Your task to perform on an android device: toggle show notifications on the lock screen Image 0: 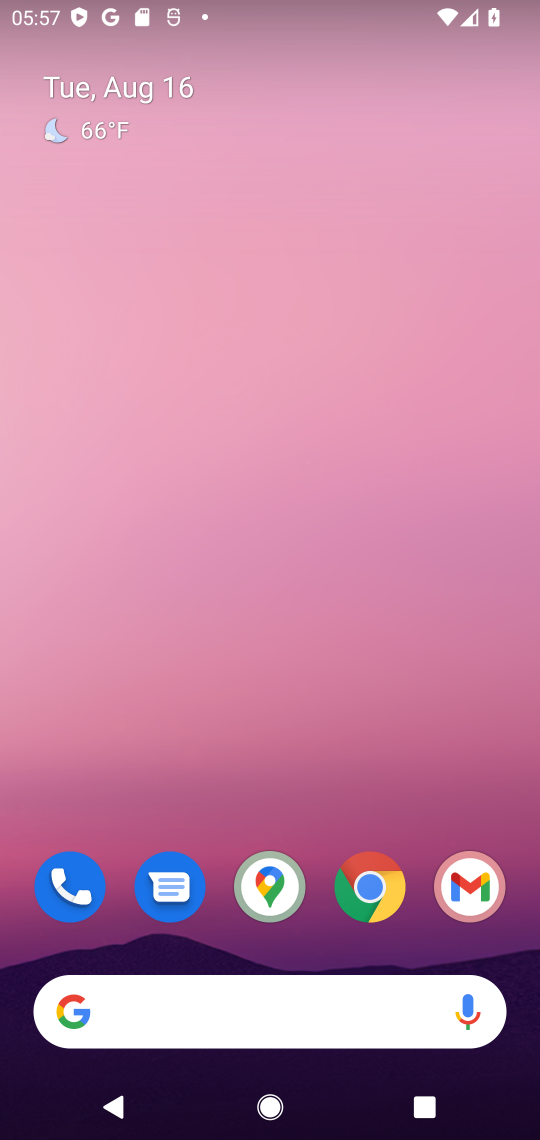
Step 0: drag from (270, 800) to (343, 25)
Your task to perform on an android device: toggle show notifications on the lock screen Image 1: 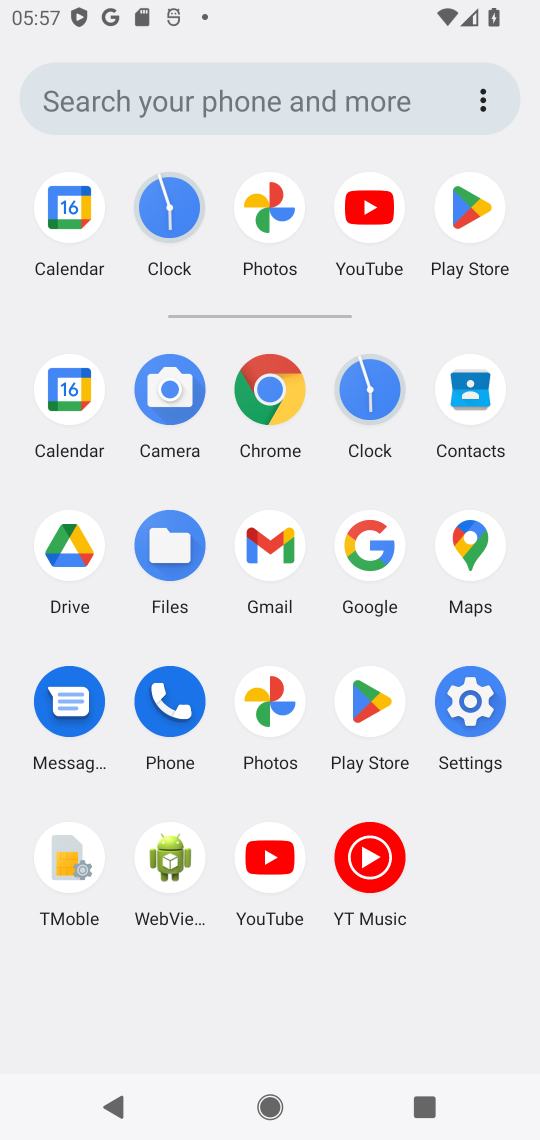
Step 1: click (485, 679)
Your task to perform on an android device: toggle show notifications on the lock screen Image 2: 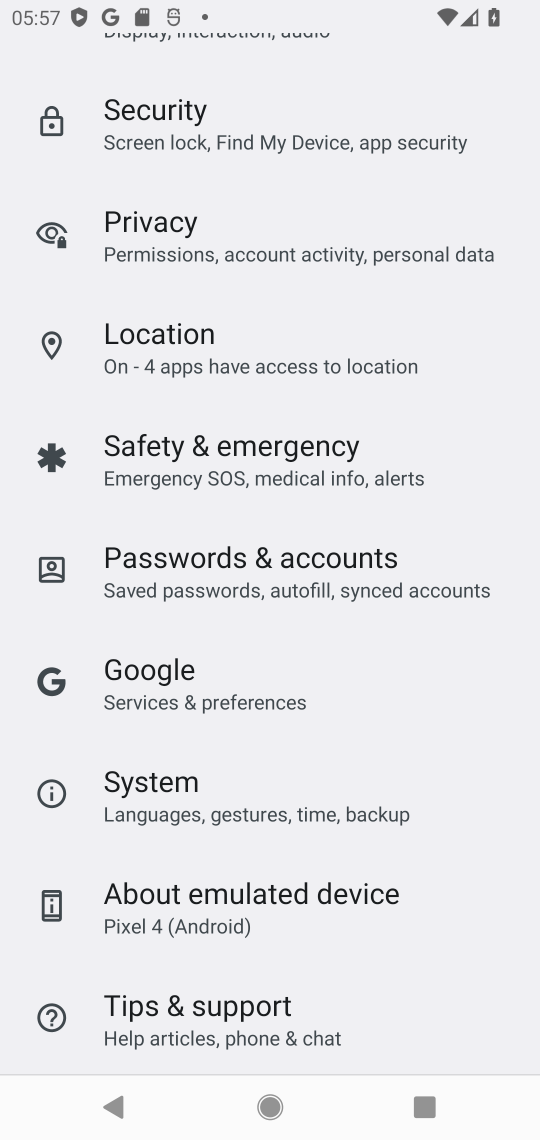
Step 2: drag from (343, 170) to (299, 712)
Your task to perform on an android device: toggle show notifications on the lock screen Image 3: 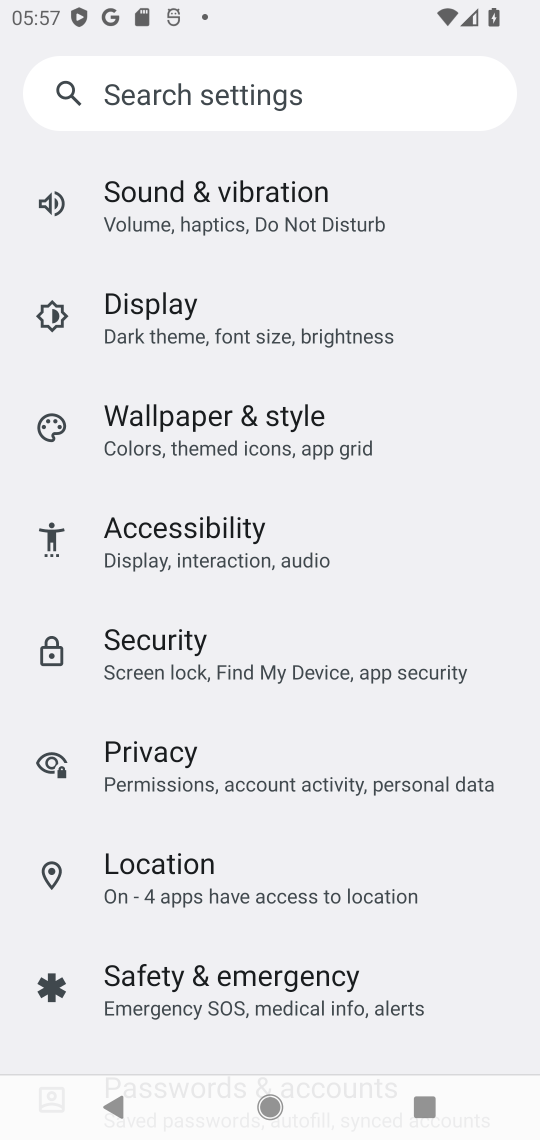
Step 3: drag from (455, 277) to (343, 769)
Your task to perform on an android device: toggle show notifications on the lock screen Image 4: 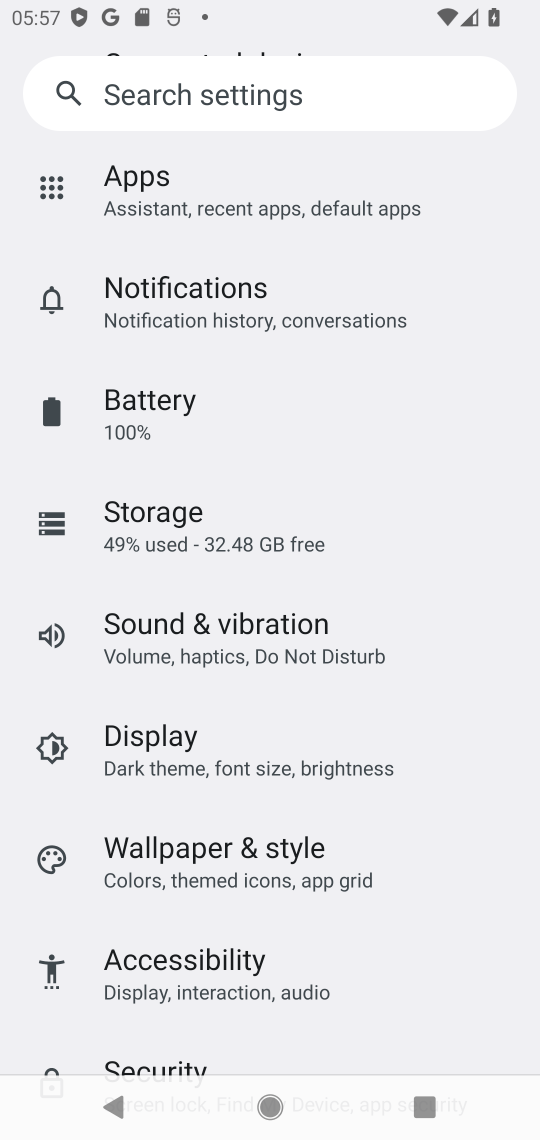
Step 4: click (263, 306)
Your task to perform on an android device: toggle show notifications on the lock screen Image 5: 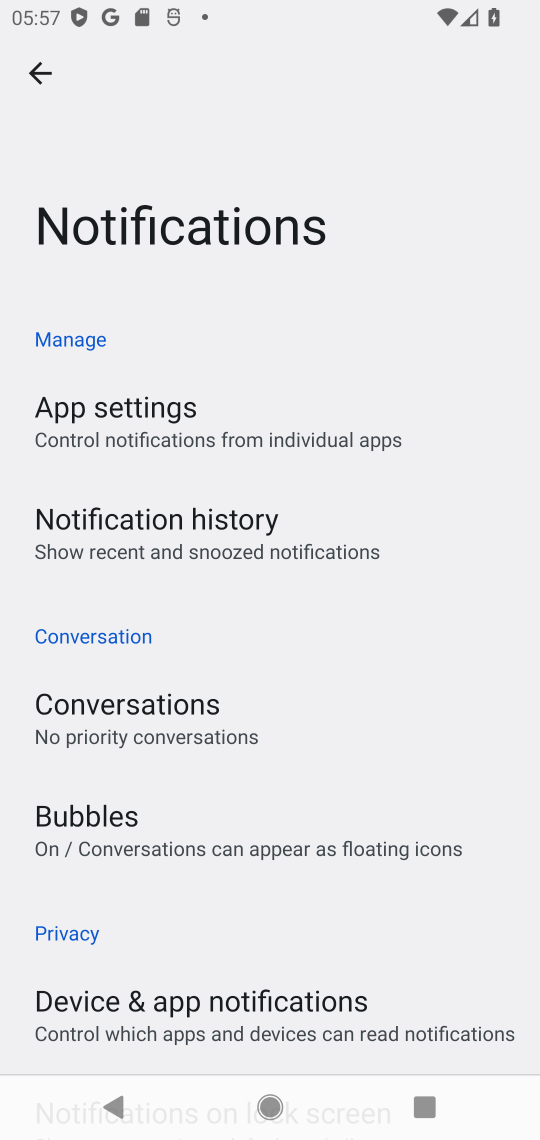
Step 5: drag from (334, 912) to (329, 326)
Your task to perform on an android device: toggle show notifications on the lock screen Image 6: 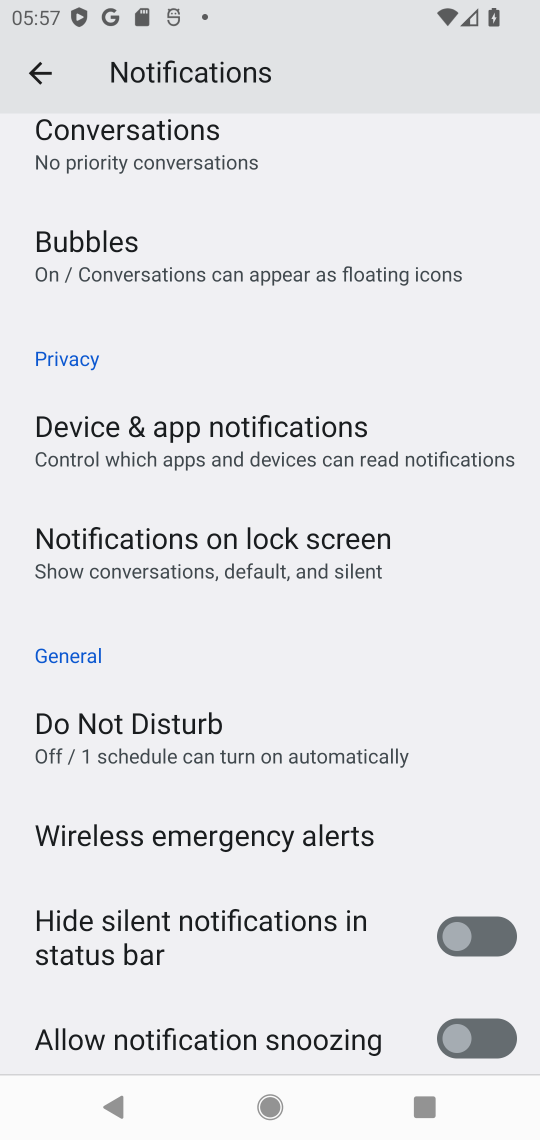
Step 6: click (230, 555)
Your task to perform on an android device: toggle show notifications on the lock screen Image 7: 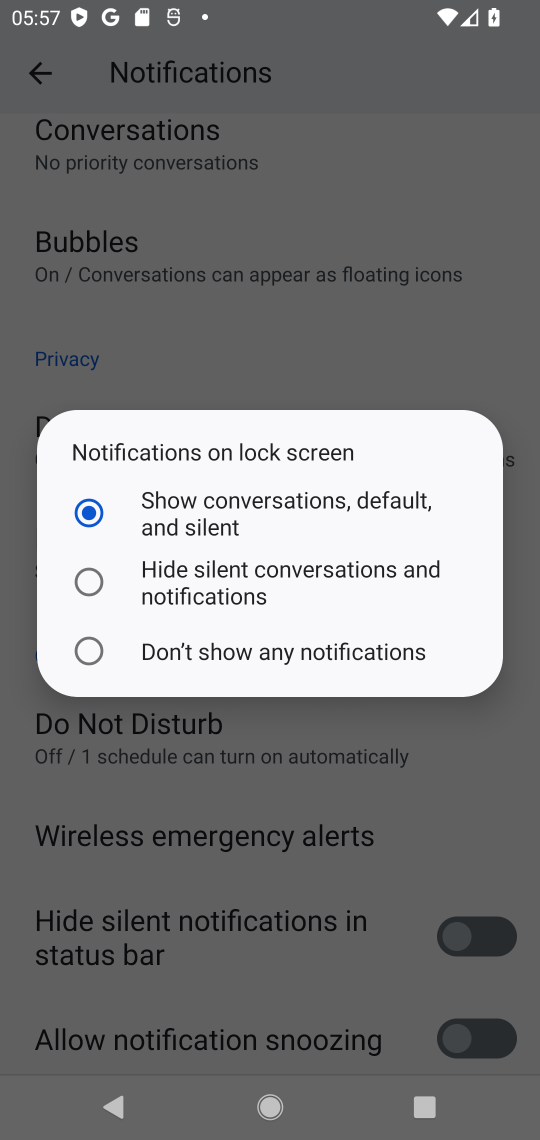
Step 7: click (193, 645)
Your task to perform on an android device: toggle show notifications on the lock screen Image 8: 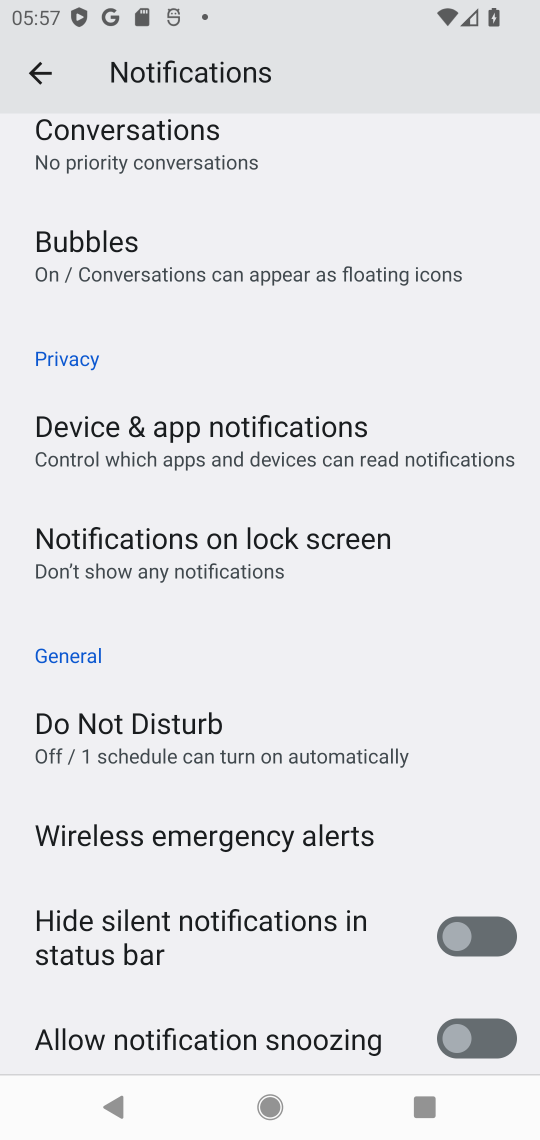
Step 8: task complete